Your task to perform on an android device: delete location history Image 0: 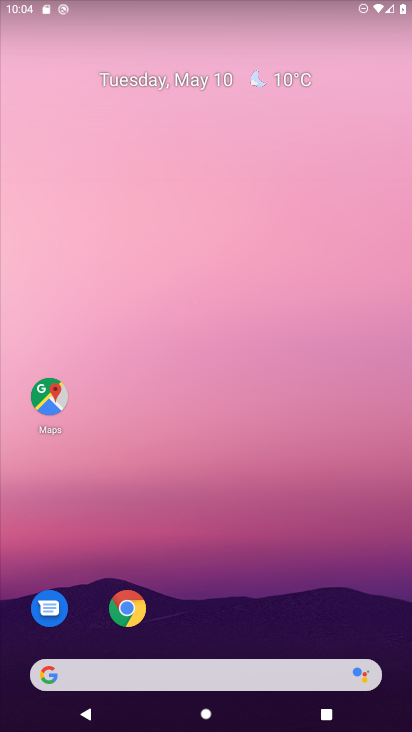
Step 0: drag from (384, 634) to (343, 51)
Your task to perform on an android device: delete location history Image 1: 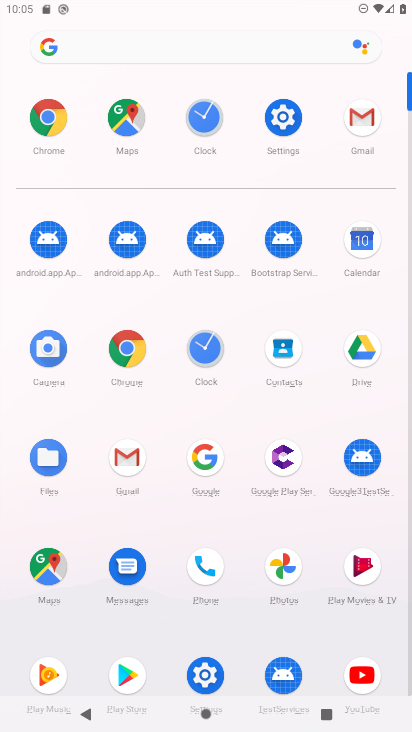
Step 1: click (210, 665)
Your task to perform on an android device: delete location history Image 2: 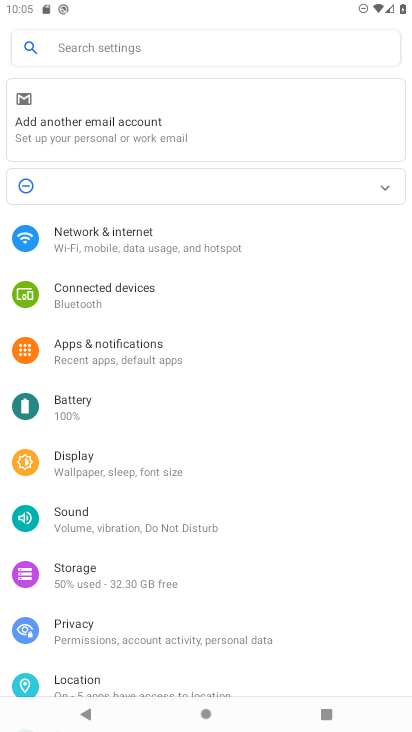
Step 2: click (149, 684)
Your task to perform on an android device: delete location history Image 3: 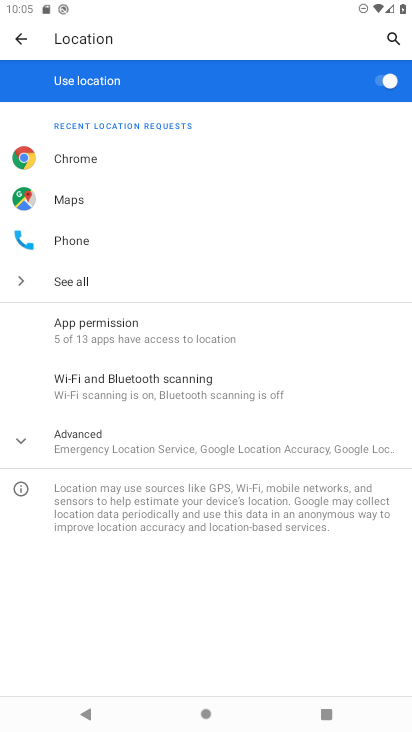
Step 3: click (138, 436)
Your task to perform on an android device: delete location history Image 4: 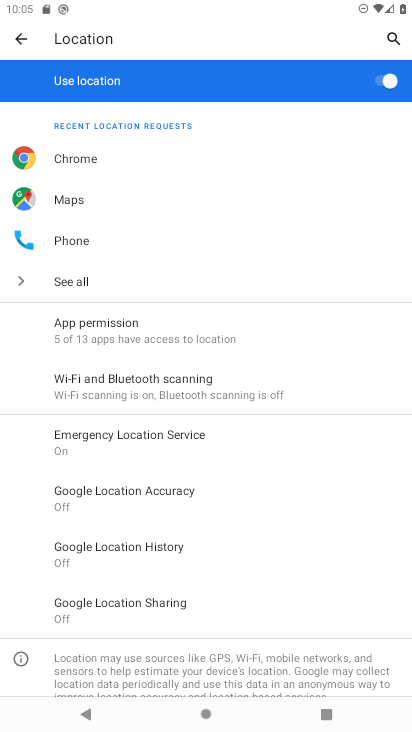
Step 4: click (140, 547)
Your task to perform on an android device: delete location history Image 5: 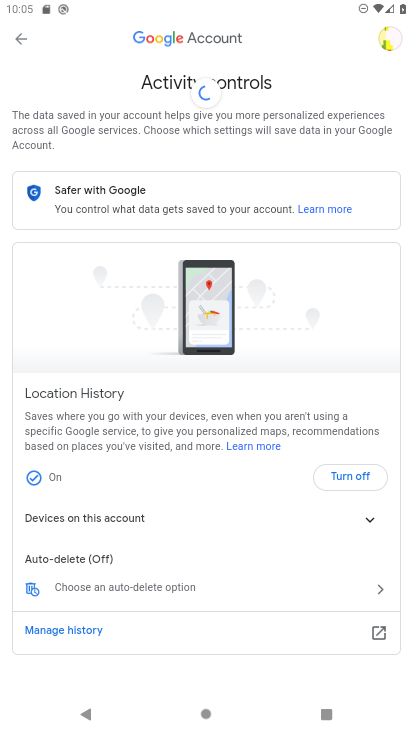
Step 5: drag from (310, 608) to (255, 237)
Your task to perform on an android device: delete location history Image 6: 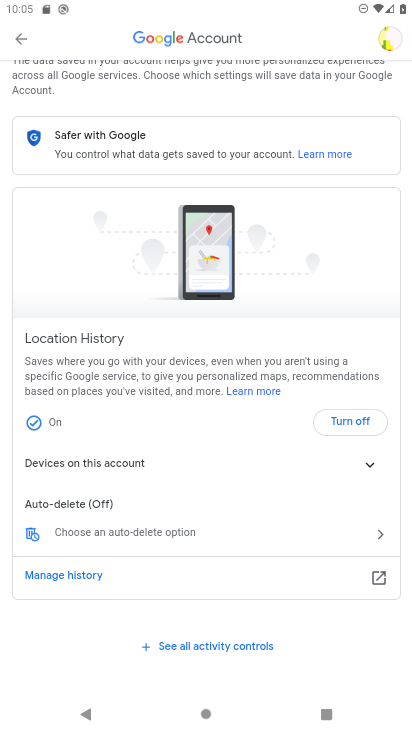
Step 6: click (90, 510)
Your task to perform on an android device: delete location history Image 7: 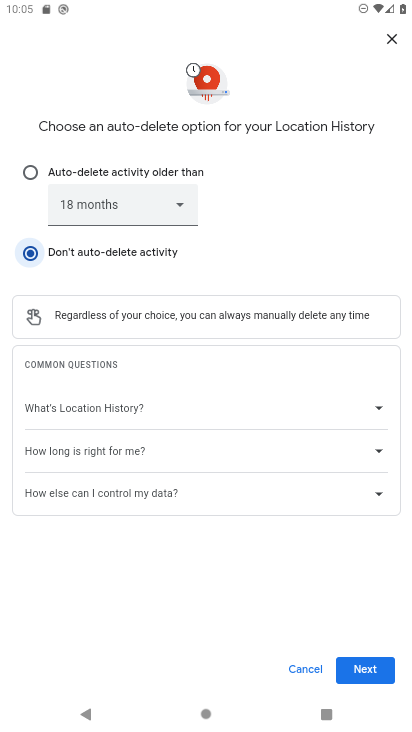
Step 7: click (369, 661)
Your task to perform on an android device: delete location history Image 8: 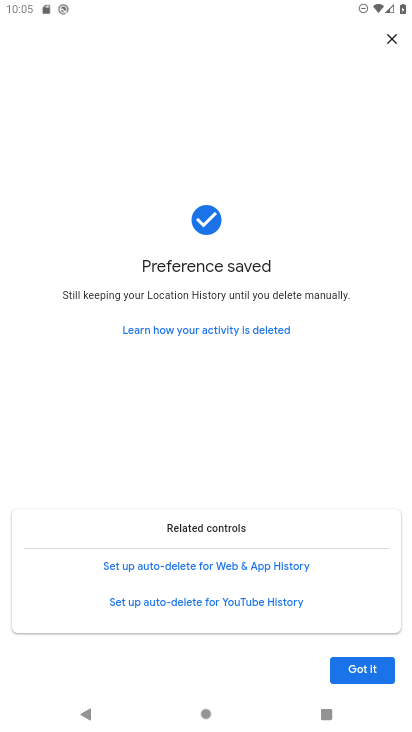
Step 8: click (346, 680)
Your task to perform on an android device: delete location history Image 9: 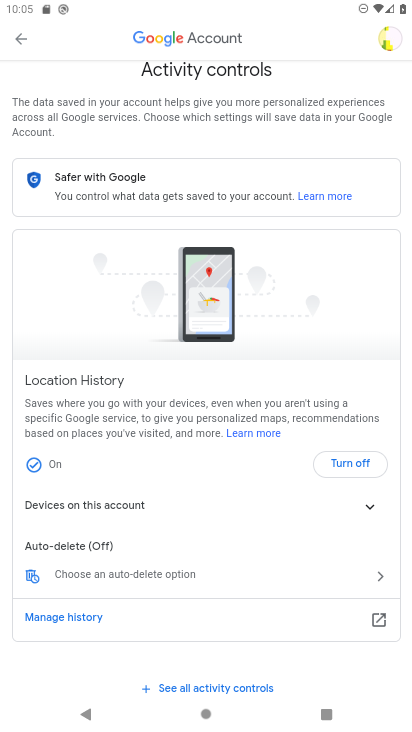
Step 9: task complete